Your task to perform on an android device: When is my next meeting? Image 0: 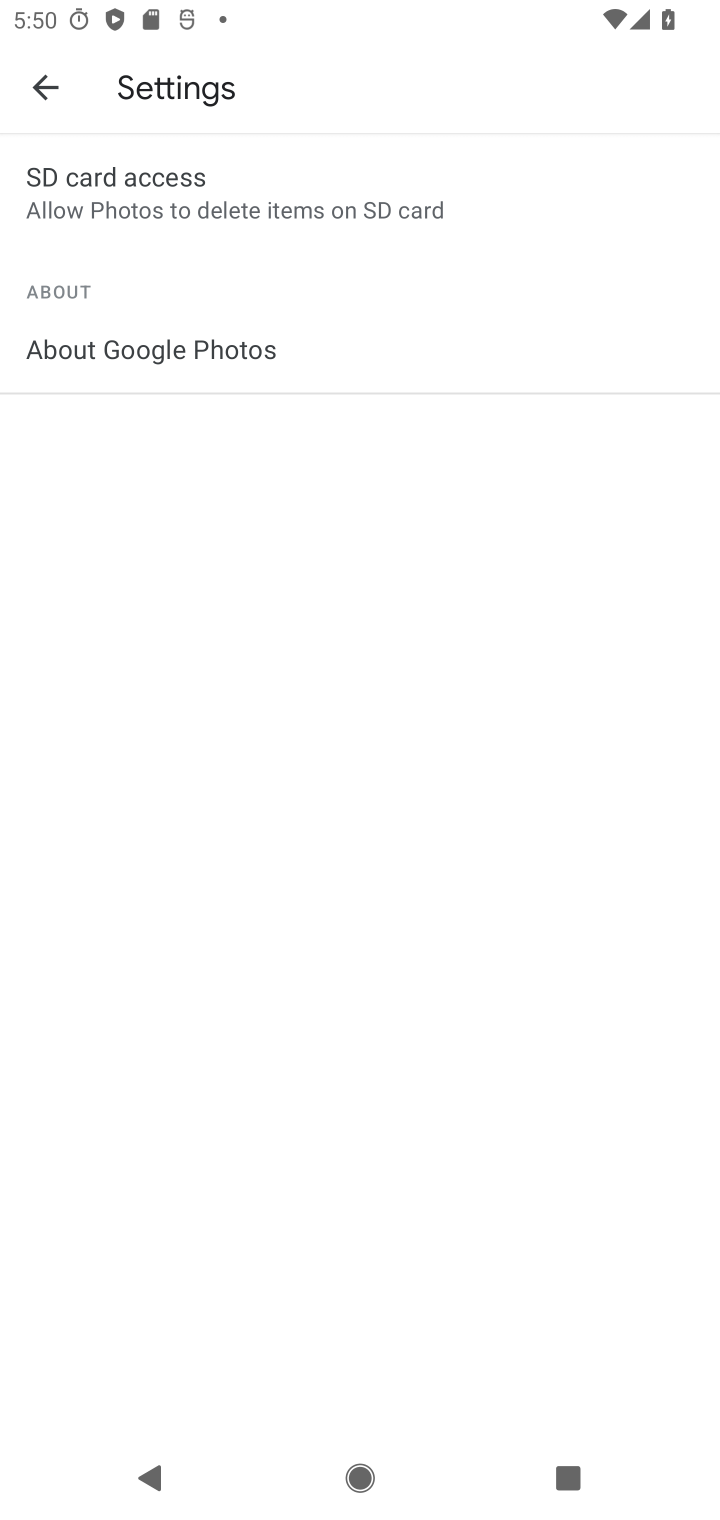
Step 0: press home button
Your task to perform on an android device: When is my next meeting? Image 1: 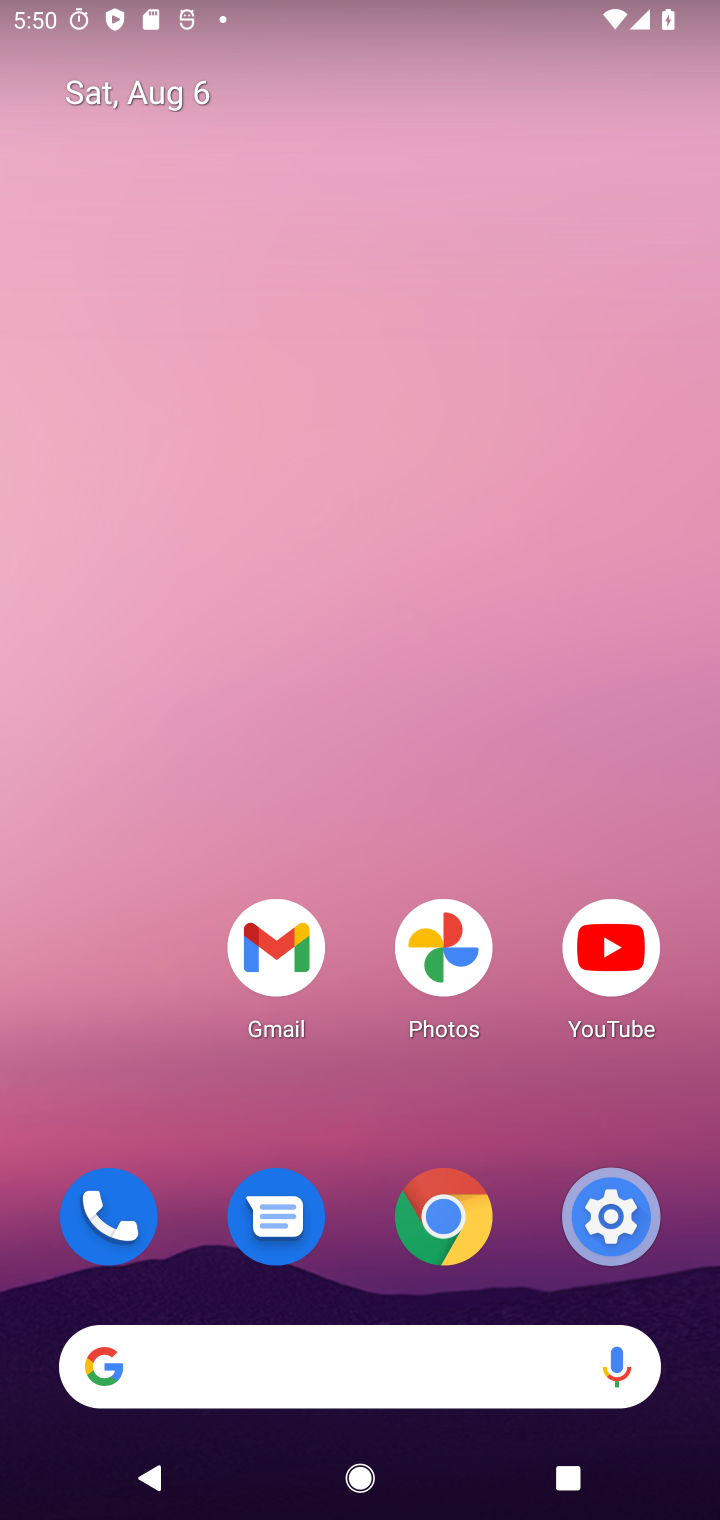
Step 1: drag from (374, 1028) to (440, 140)
Your task to perform on an android device: When is my next meeting? Image 2: 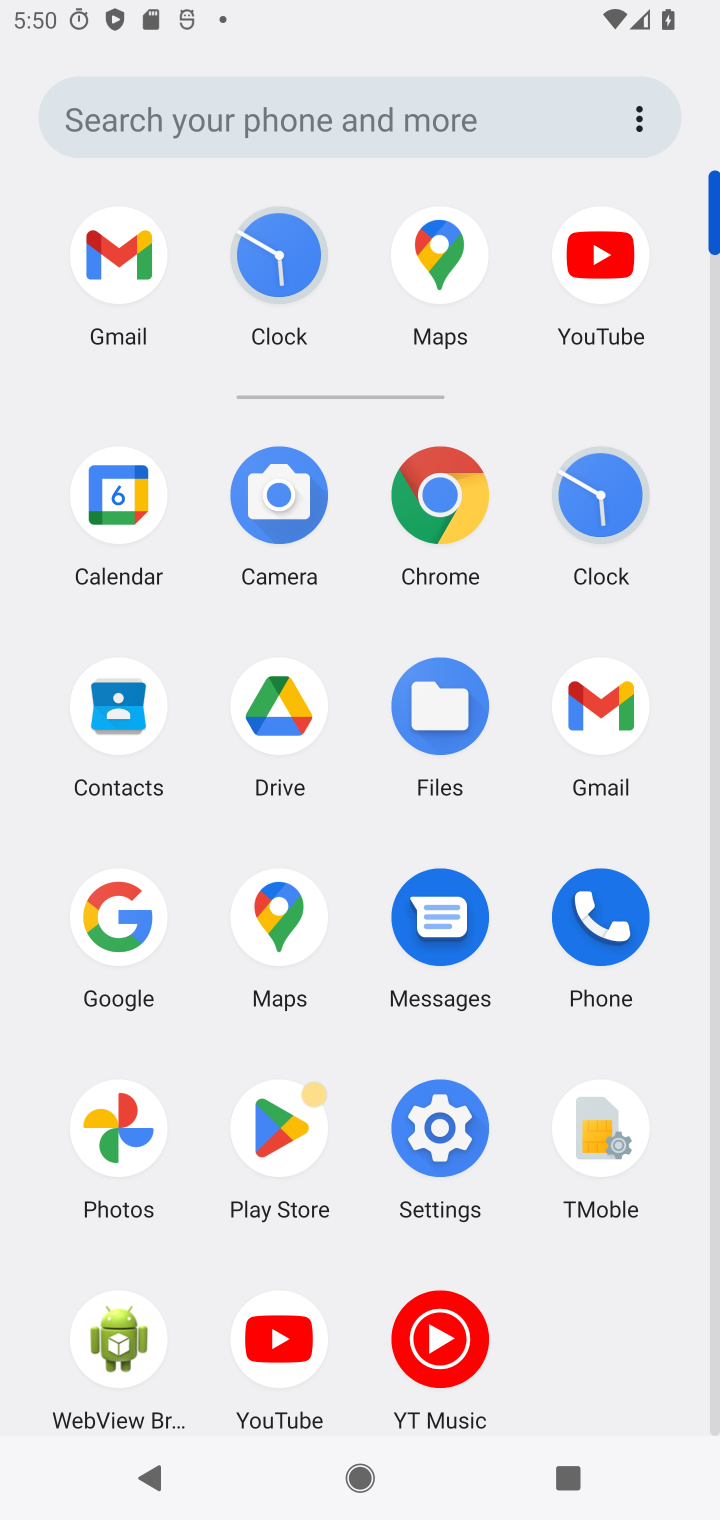
Step 2: click (119, 504)
Your task to perform on an android device: When is my next meeting? Image 3: 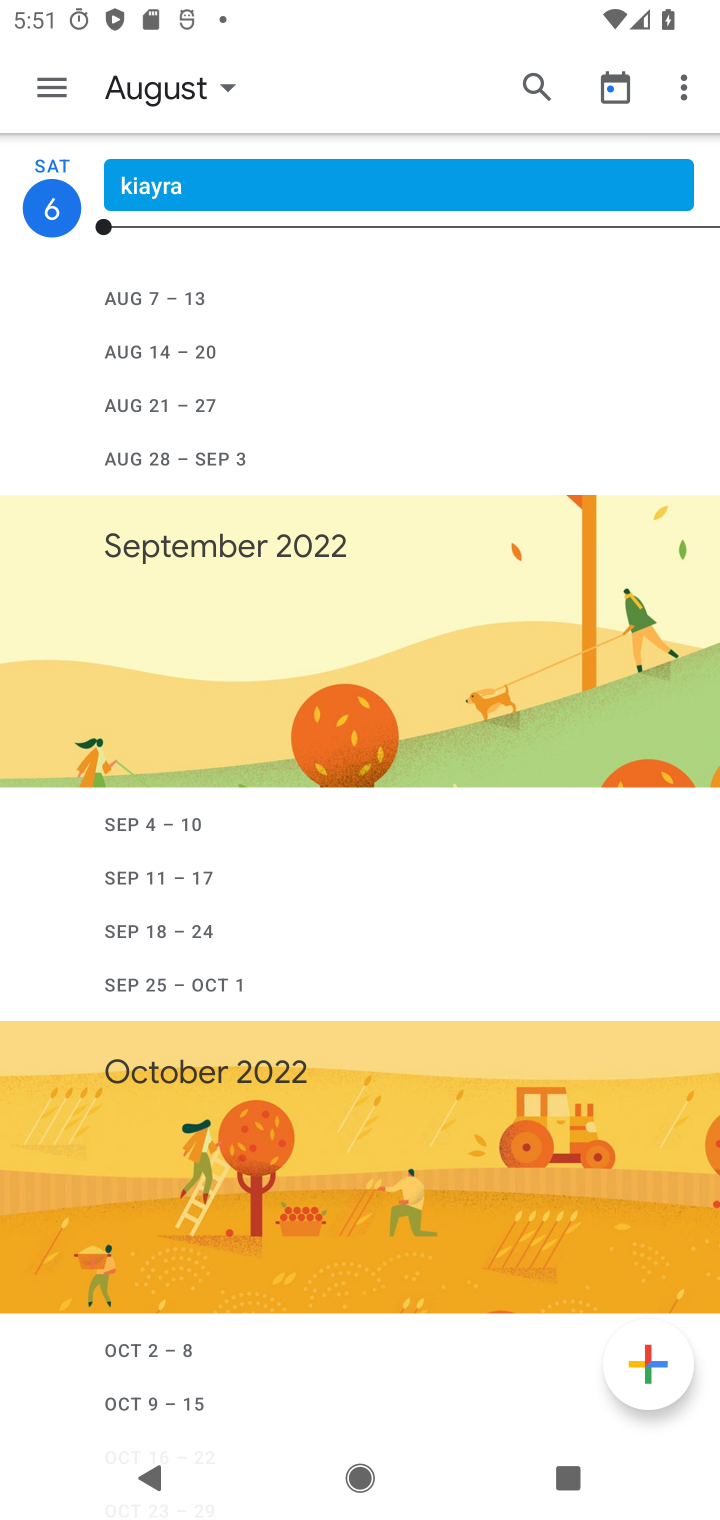
Step 3: click (50, 92)
Your task to perform on an android device: When is my next meeting? Image 4: 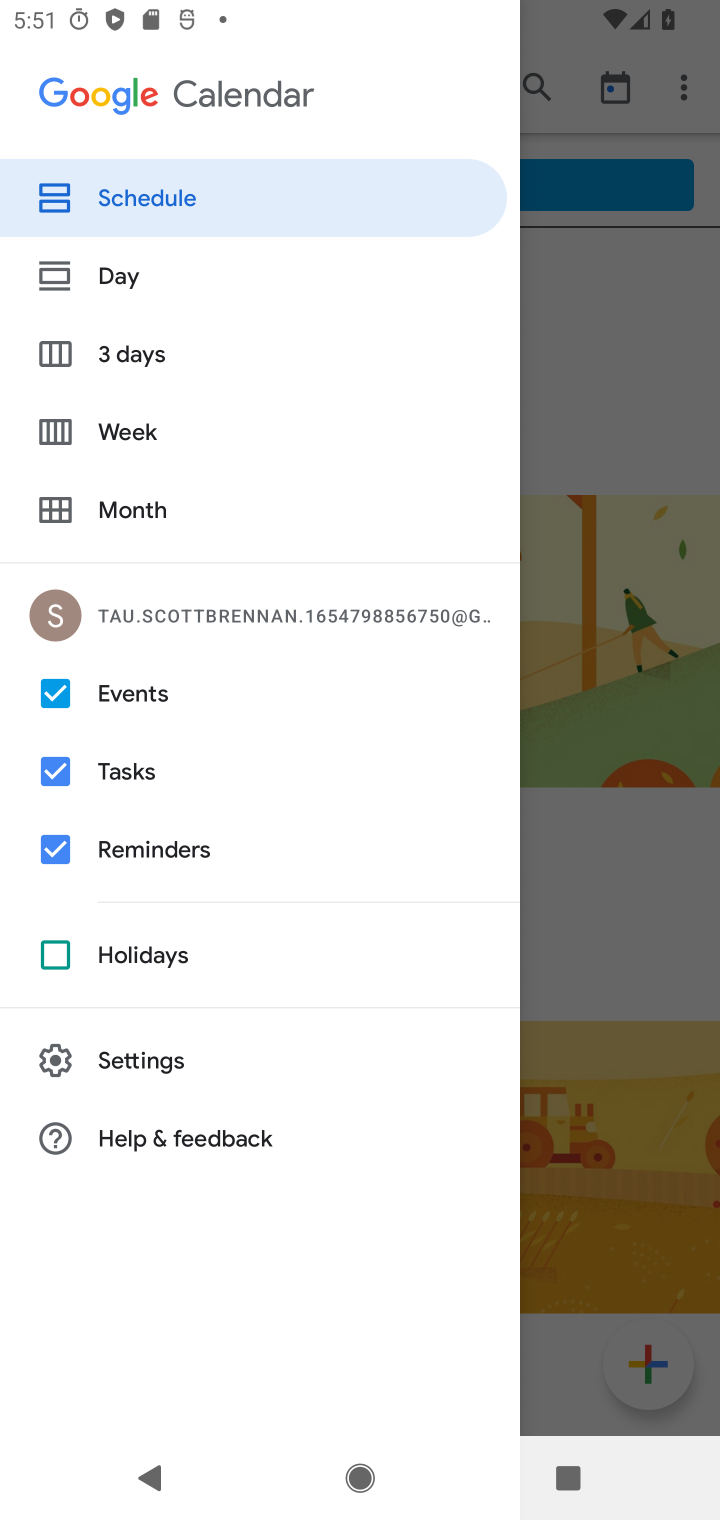
Step 4: click (160, 444)
Your task to perform on an android device: When is my next meeting? Image 5: 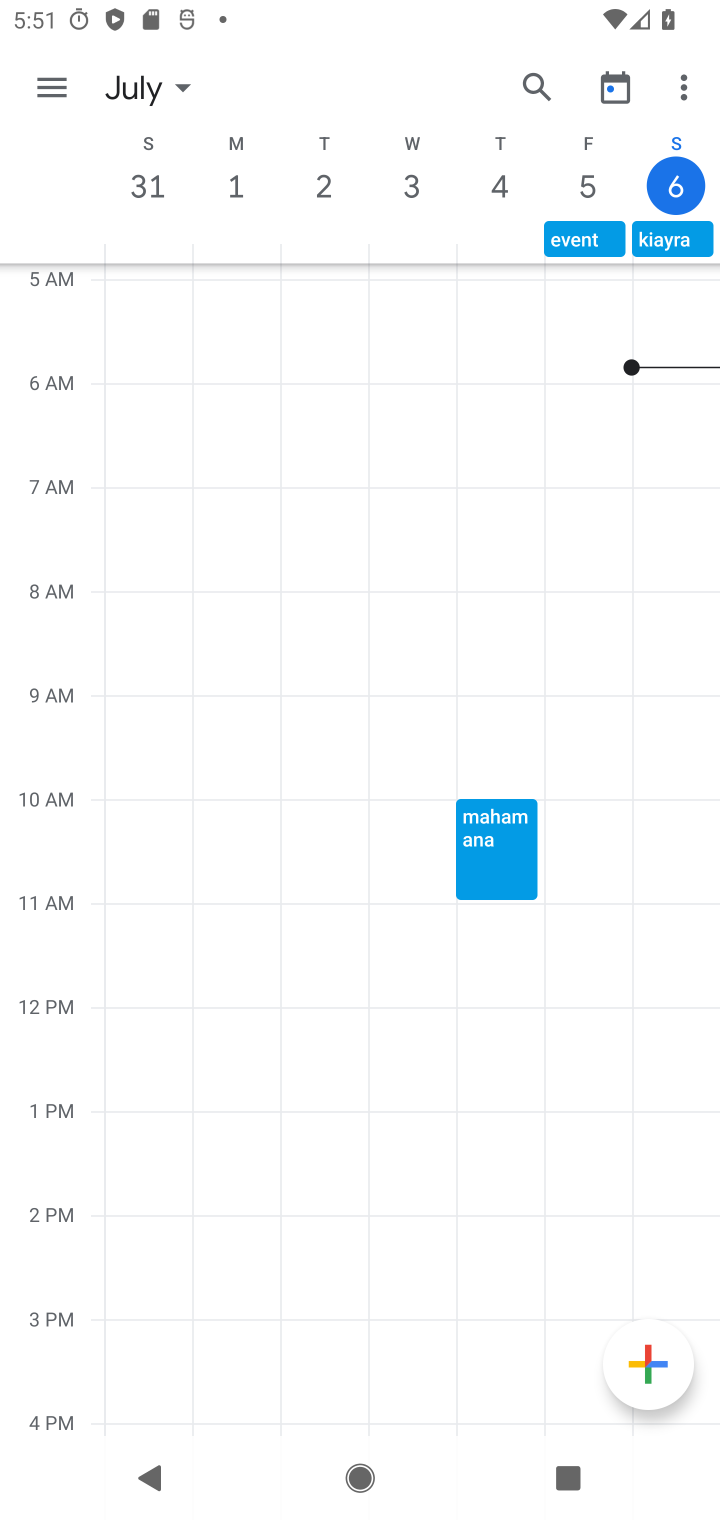
Step 5: task complete